Your task to perform on an android device: open app "Paramount+ | Peak Streaming" (install if not already installed) and enter user name: "fostered@yahoo.com" and password: "strong" Image 0: 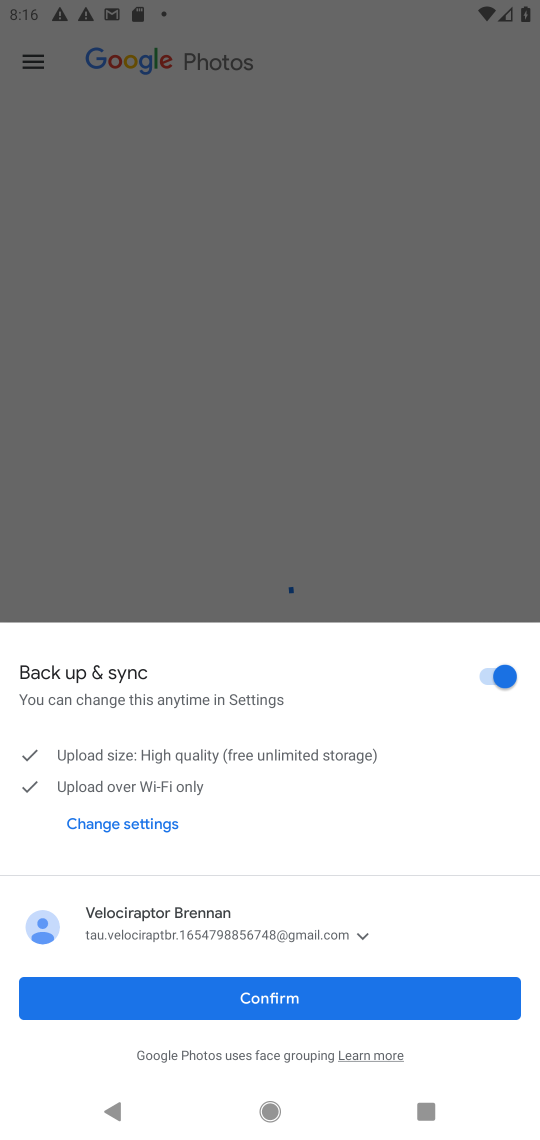
Step 0: press home button
Your task to perform on an android device: open app "Paramount+ | Peak Streaming" (install if not already installed) and enter user name: "fostered@yahoo.com" and password: "strong" Image 1: 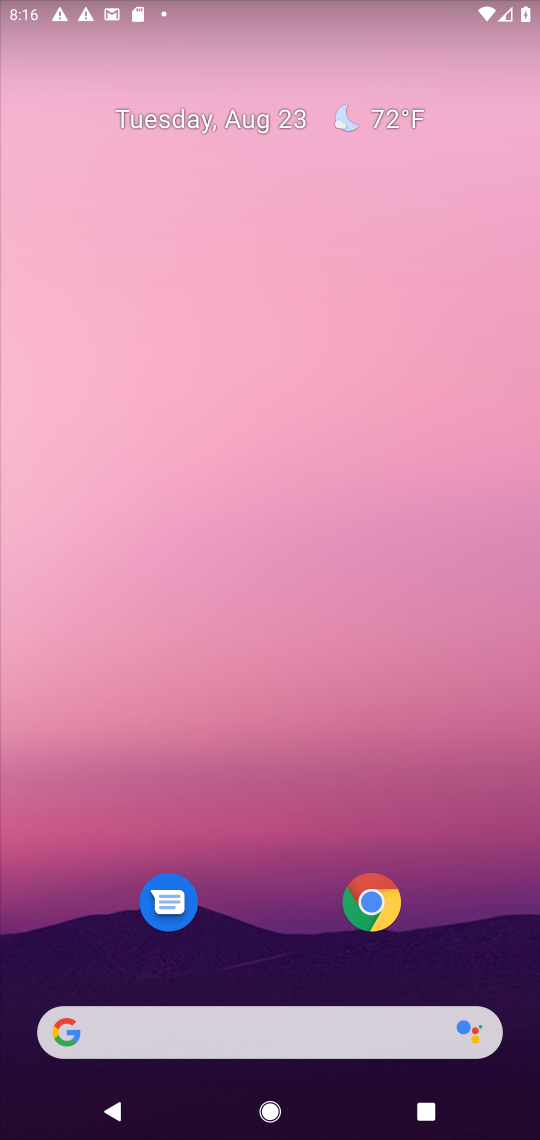
Step 1: drag from (265, 834) to (376, 134)
Your task to perform on an android device: open app "Paramount+ | Peak Streaming" (install if not already installed) and enter user name: "fostered@yahoo.com" and password: "strong" Image 2: 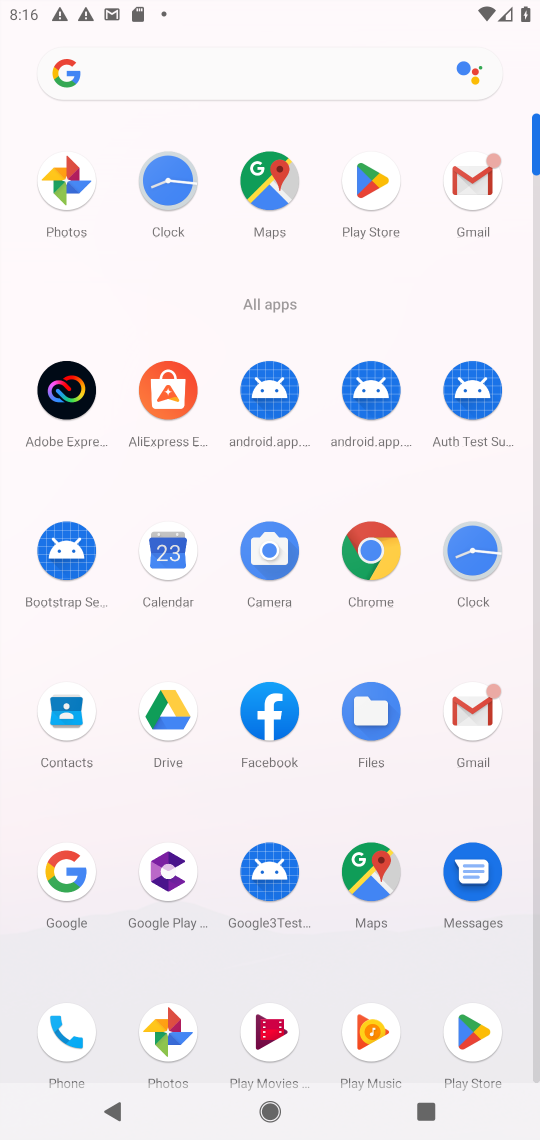
Step 2: click (388, 166)
Your task to perform on an android device: open app "Paramount+ | Peak Streaming" (install if not already installed) and enter user name: "fostered@yahoo.com" and password: "strong" Image 3: 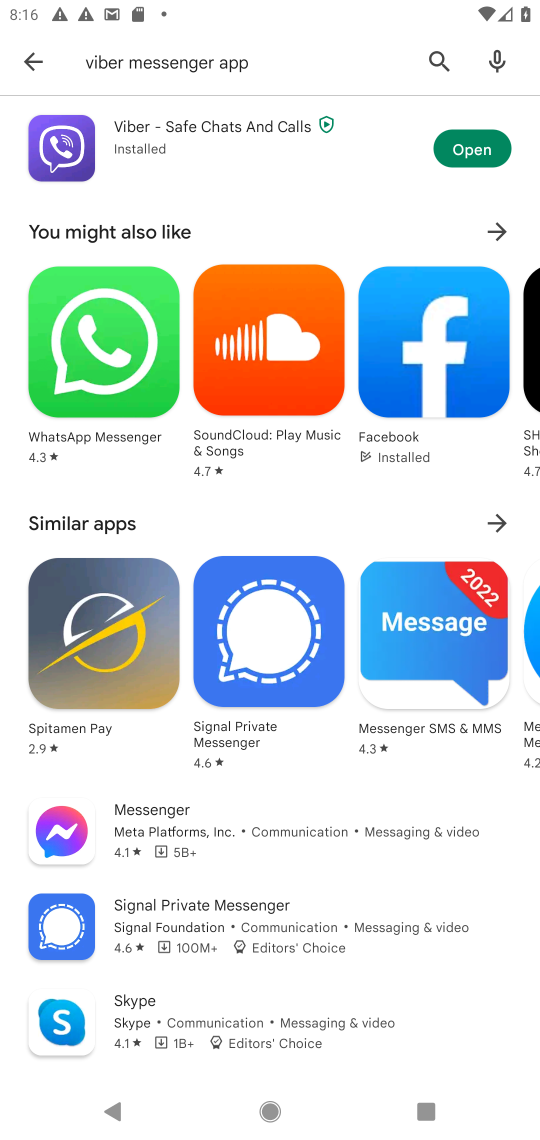
Step 3: click (444, 73)
Your task to perform on an android device: open app "Paramount+ | Peak Streaming" (install if not already installed) and enter user name: "fostered@yahoo.com" and password: "strong" Image 4: 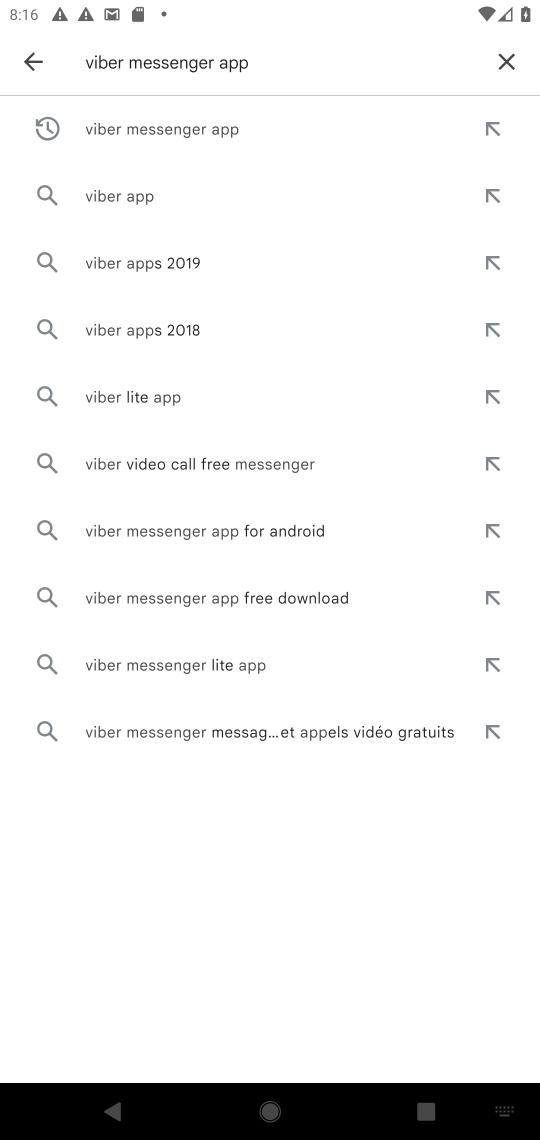
Step 4: click (502, 62)
Your task to perform on an android device: open app "Paramount+ | Peak Streaming" (install if not already installed) and enter user name: "fostered@yahoo.com" and password: "strong" Image 5: 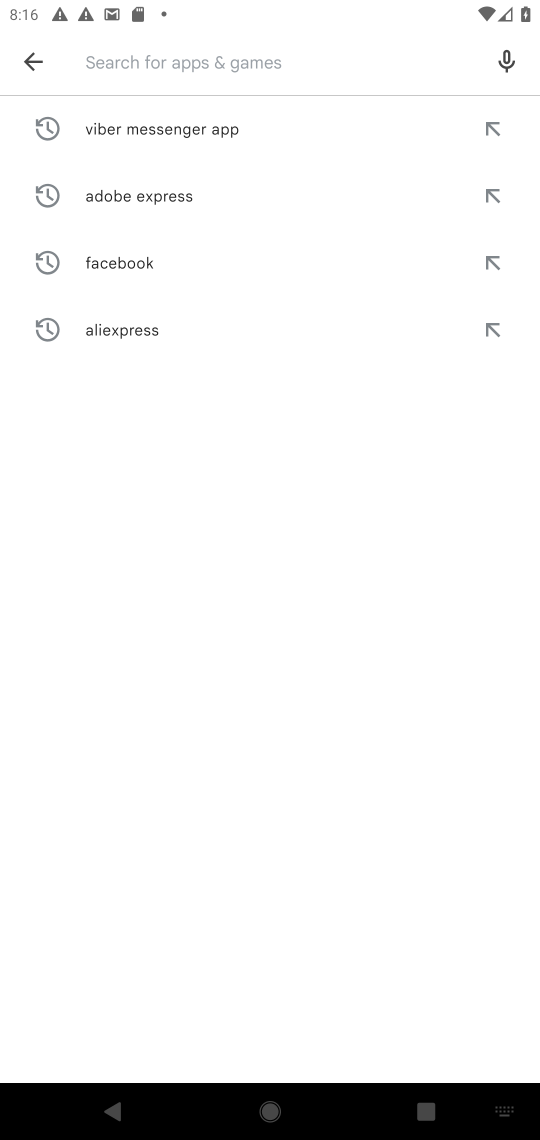
Step 5: type "paramount+"
Your task to perform on an android device: open app "Paramount+ | Peak Streaming" (install if not already installed) and enter user name: "fostered@yahoo.com" and password: "strong" Image 6: 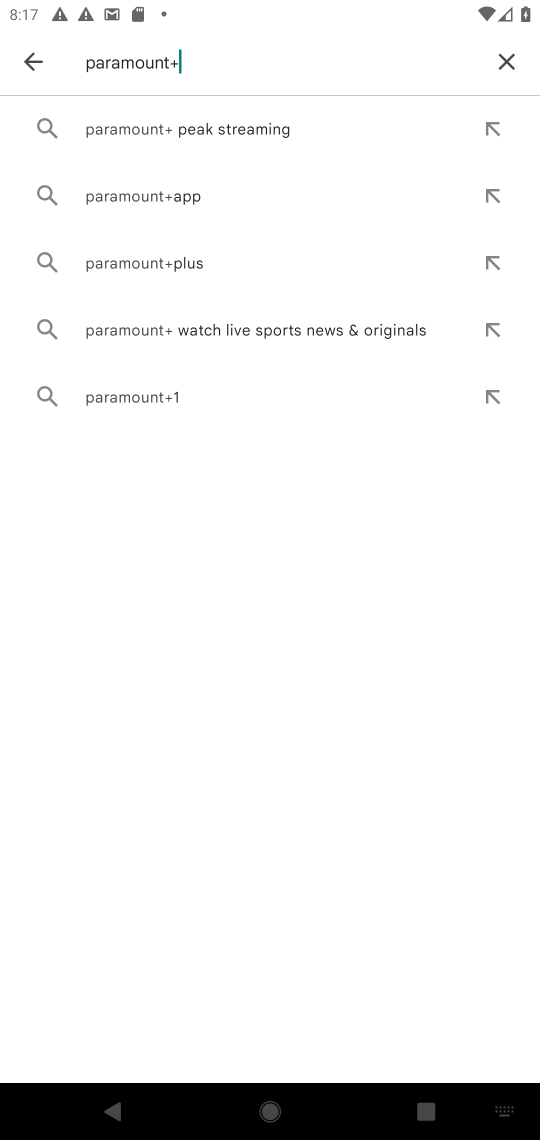
Step 6: click (208, 131)
Your task to perform on an android device: open app "Paramount+ | Peak Streaming" (install if not already installed) and enter user name: "fostered@yahoo.com" and password: "strong" Image 7: 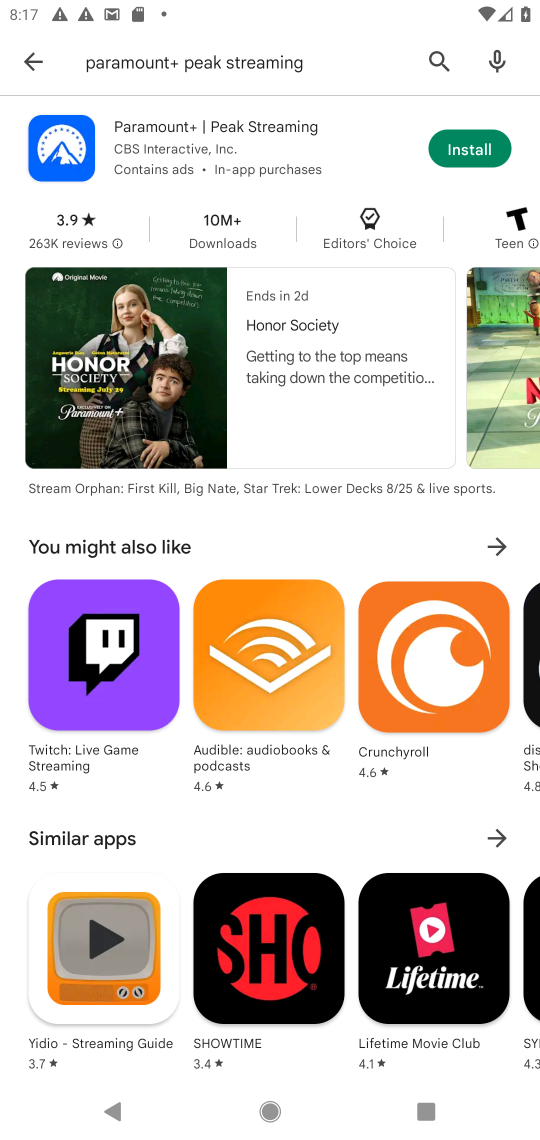
Step 7: click (490, 152)
Your task to perform on an android device: open app "Paramount+ | Peak Streaming" (install if not already installed) and enter user name: "fostered@yahoo.com" and password: "strong" Image 8: 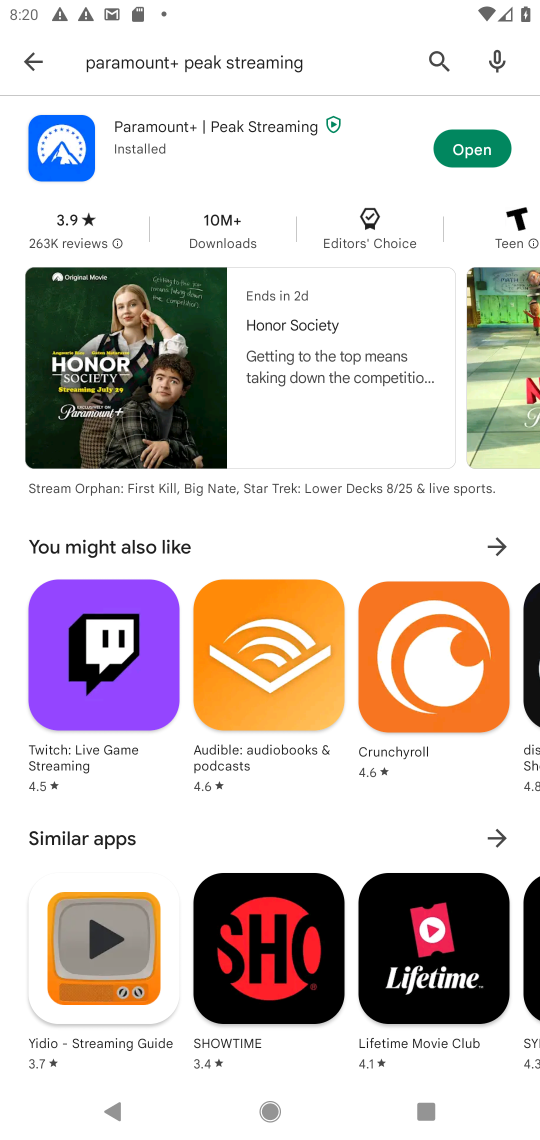
Step 8: click (474, 129)
Your task to perform on an android device: open app "Paramount+ | Peak Streaming" (install if not already installed) and enter user name: "fostered@yahoo.com" and password: "strong" Image 9: 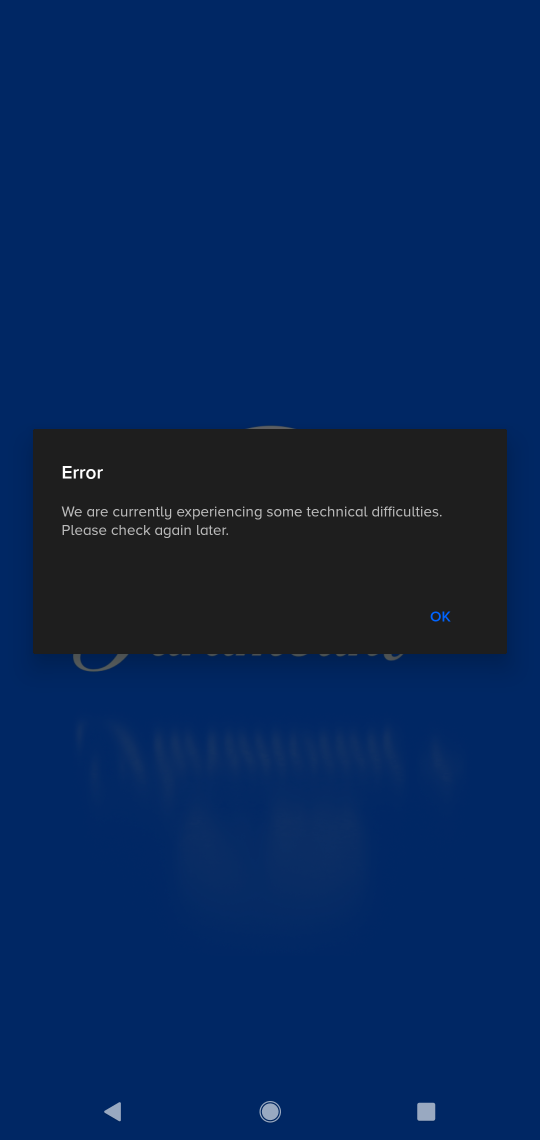
Step 9: task complete